Your task to perform on an android device: turn off wifi Image 0: 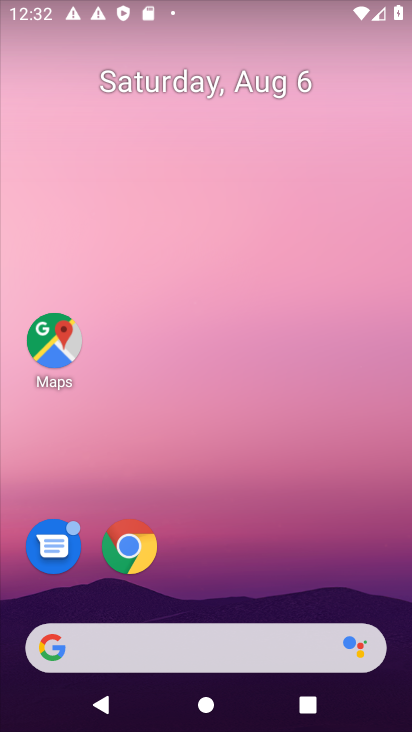
Step 0: drag from (324, 579) to (322, 123)
Your task to perform on an android device: turn off wifi Image 1: 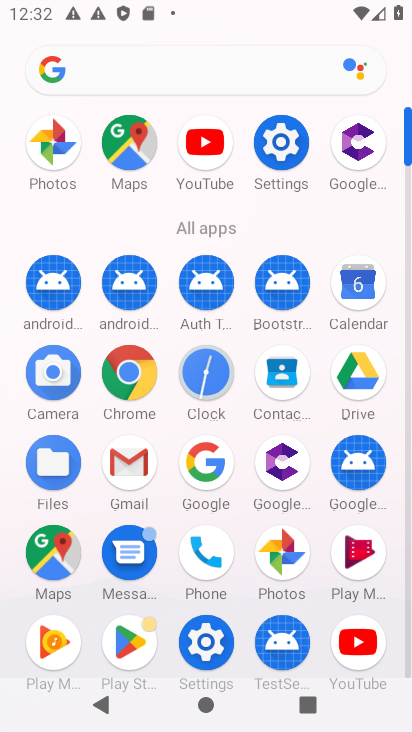
Step 1: click (207, 642)
Your task to perform on an android device: turn off wifi Image 2: 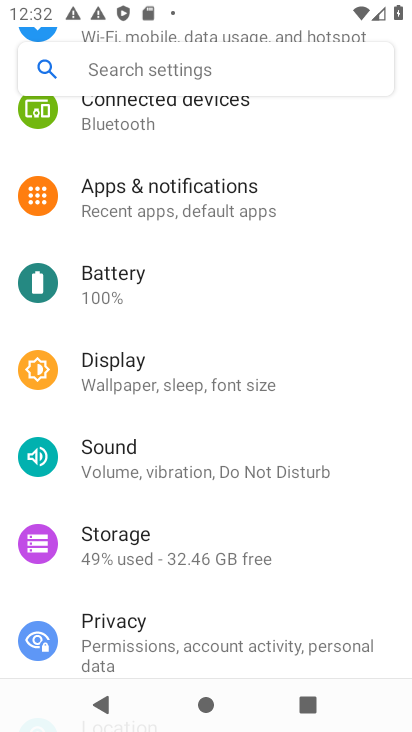
Step 2: drag from (314, 206) to (342, 478)
Your task to perform on an android device: turn off wifi Image 3: 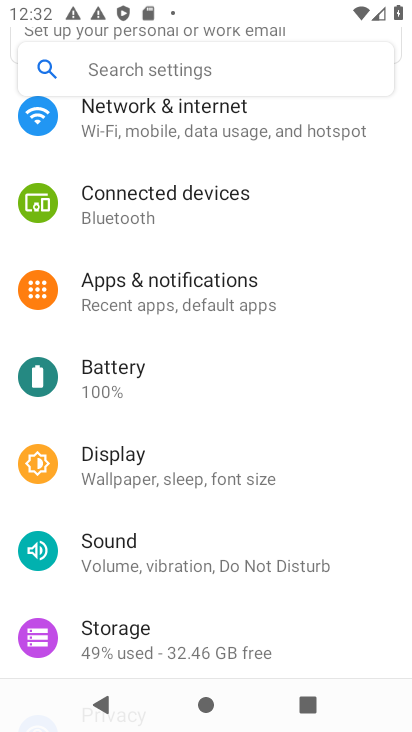
Step 3: click (126, 109)
Your task to perform on an android device: turn off wifi Image 4: 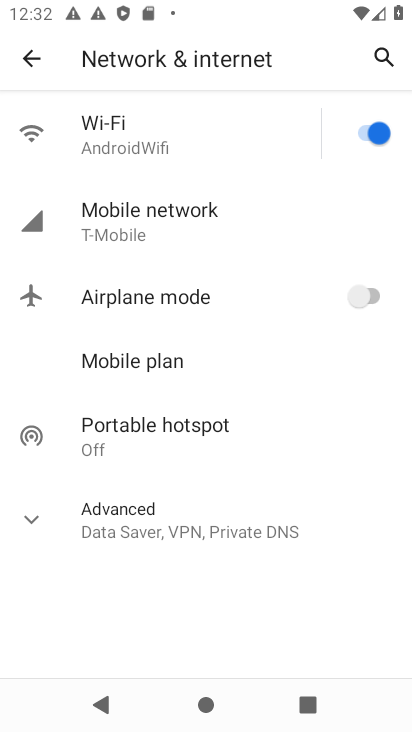
Step 4: click (366, 130)
Your task to perform on an android device: turn off wifi Image 5: 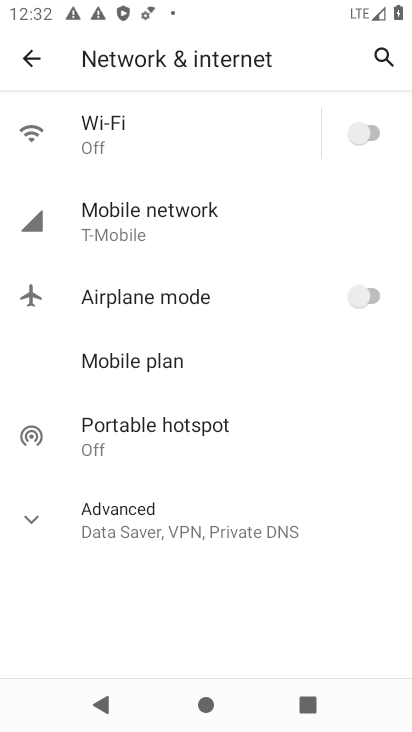
Step 5: task complete